Your task to perform on an android device: Clear all items from cart on newegg. Add "usb-c" to the cart on newegg Image 0: 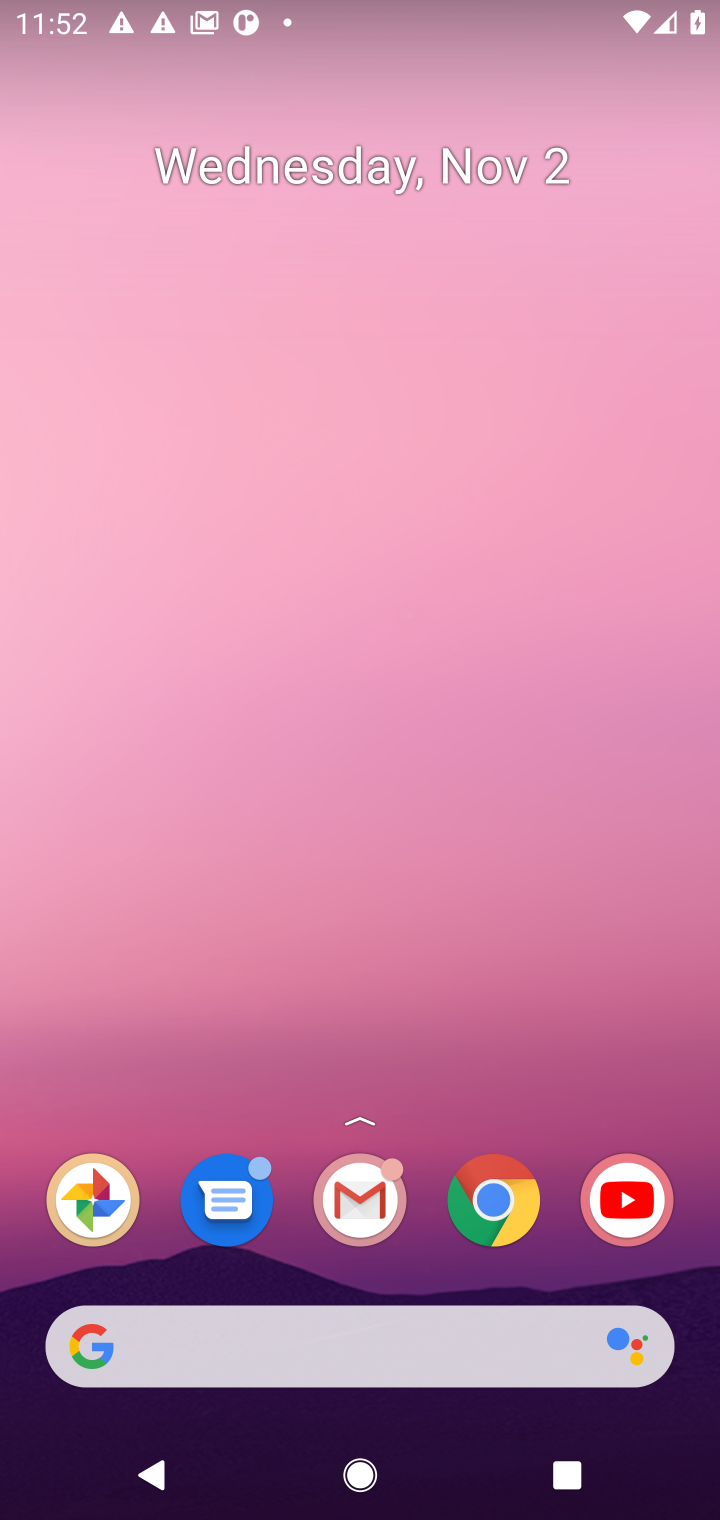
Step 0: click (490, 1186)
Your task to perform on an android device: Clear all items from cart on newegg. Add "usb-c" to the cart on newegg Image 1: 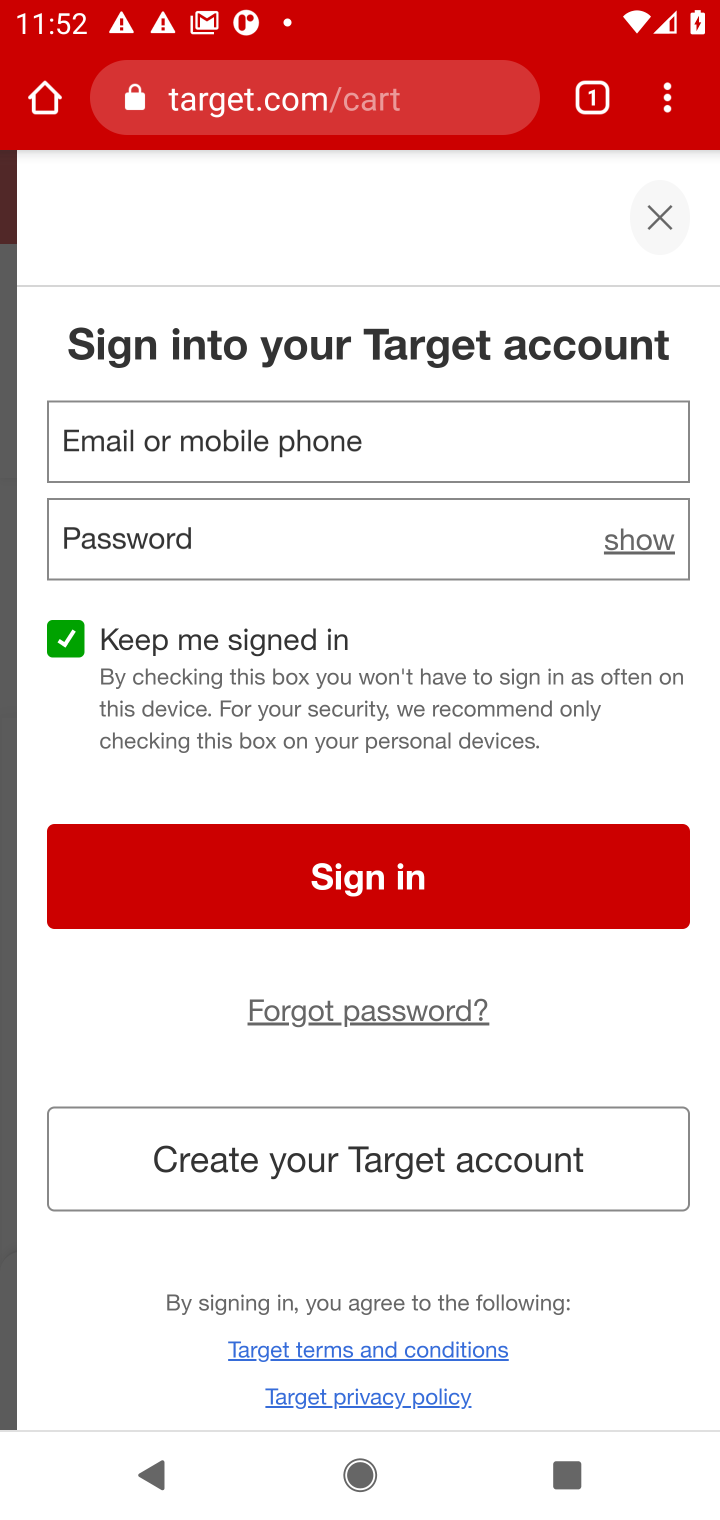
Step 1: click (49, 105)
Your task to perform on an android device: Clear all items from cart on newegg. Add "usb-c" to the cart on newegg Image 2: 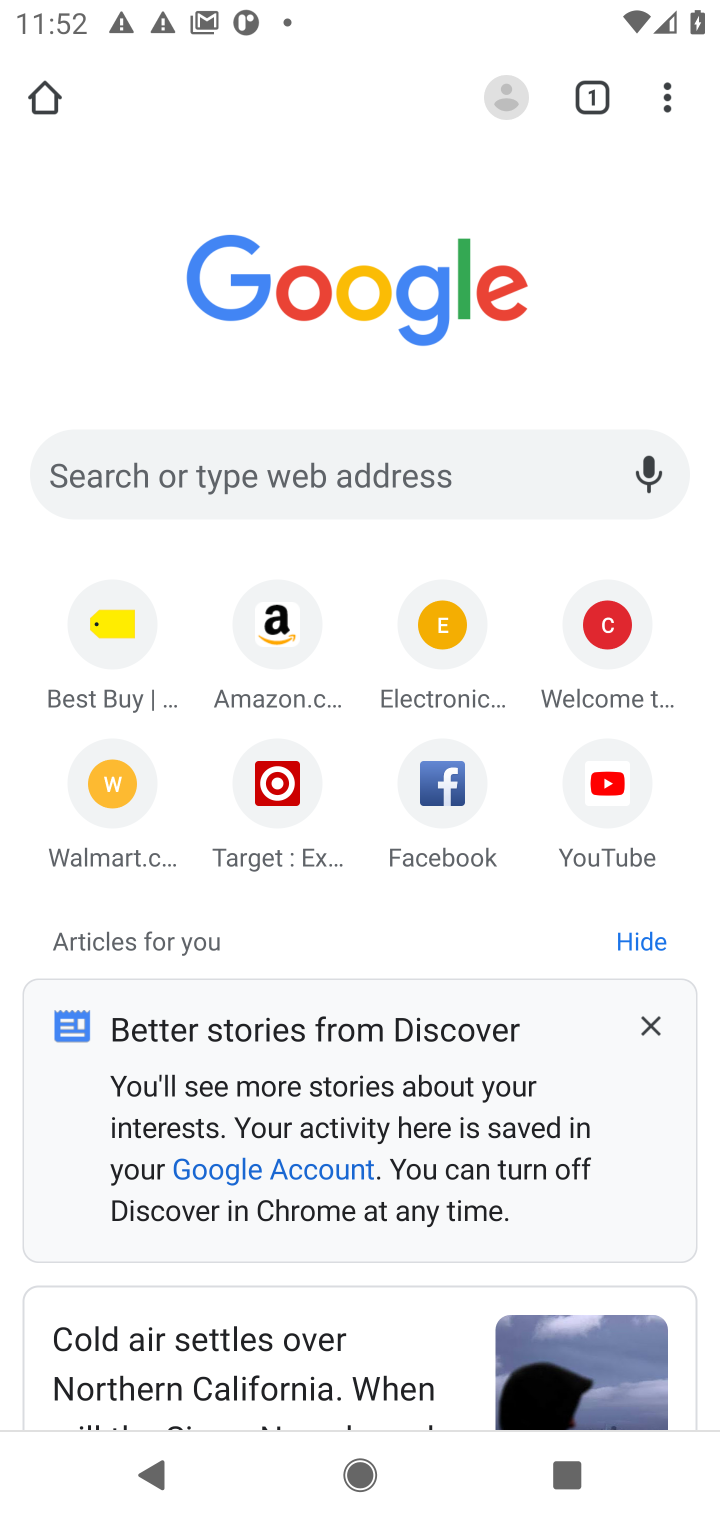
Step 2: click (435, 461)
Your task to perform on an android device: Clear all items from cart on newegg. Add "usb-c" to the cart on newegg Image 3: 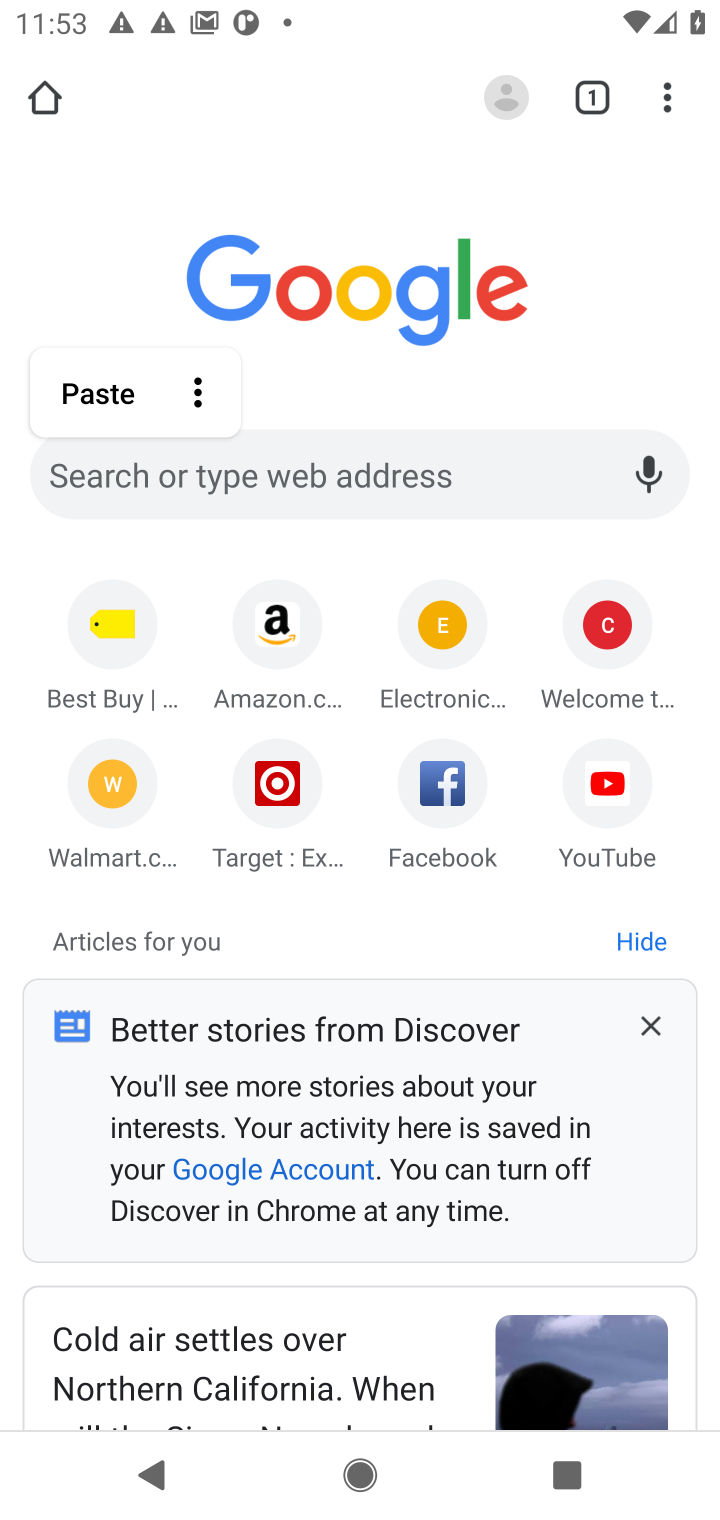
Step 3: click (284, 476)
Your task to perform on an android device: Clear all items from cart on newegg. Add "usb-c" to the cart on newegg Image 4: 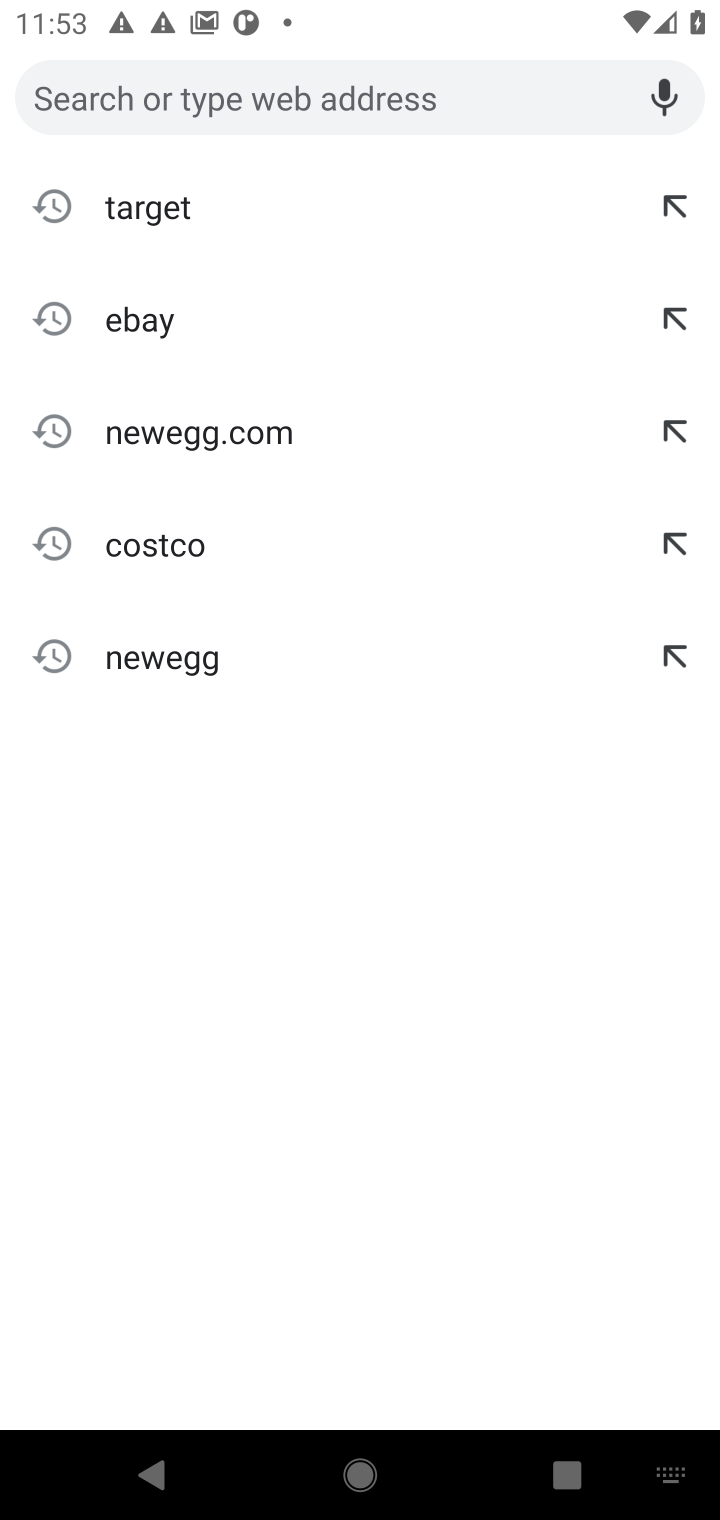
Step 4: click (284, 425)
Your task to perform on an android device: Clear all items from cart on newegg. Add "usb-c" to the cart on newegg Image 5: 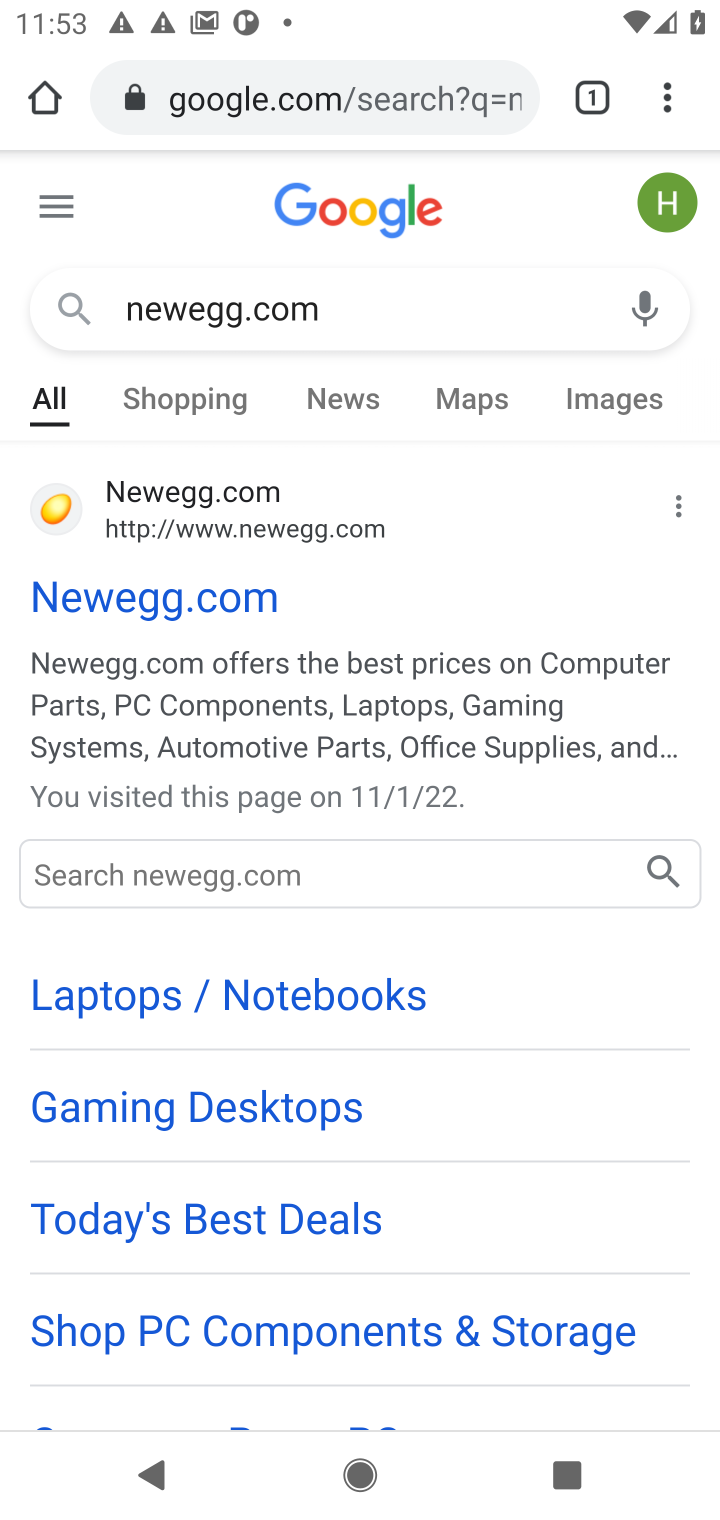
Step 5: click (207, 537)
Your task to perform on an android device: Clear all items from cart on newegg. Add "usb-c" to the cart on newegg Image 6: 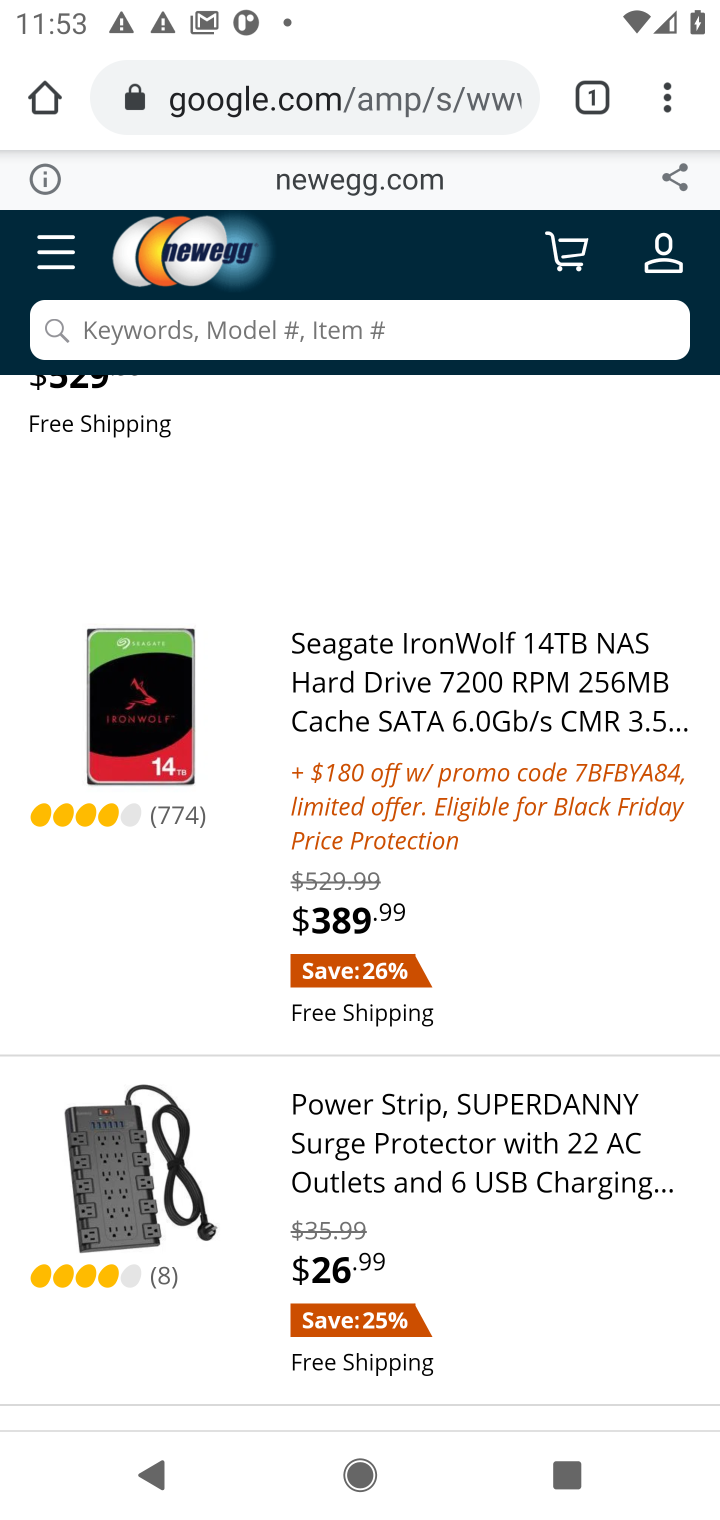
Step 6: click (577, 259)
Your task to perform on an android device: Clear all items from cart on newegg. Add "usb-c" to the cart on newegg Image 7: 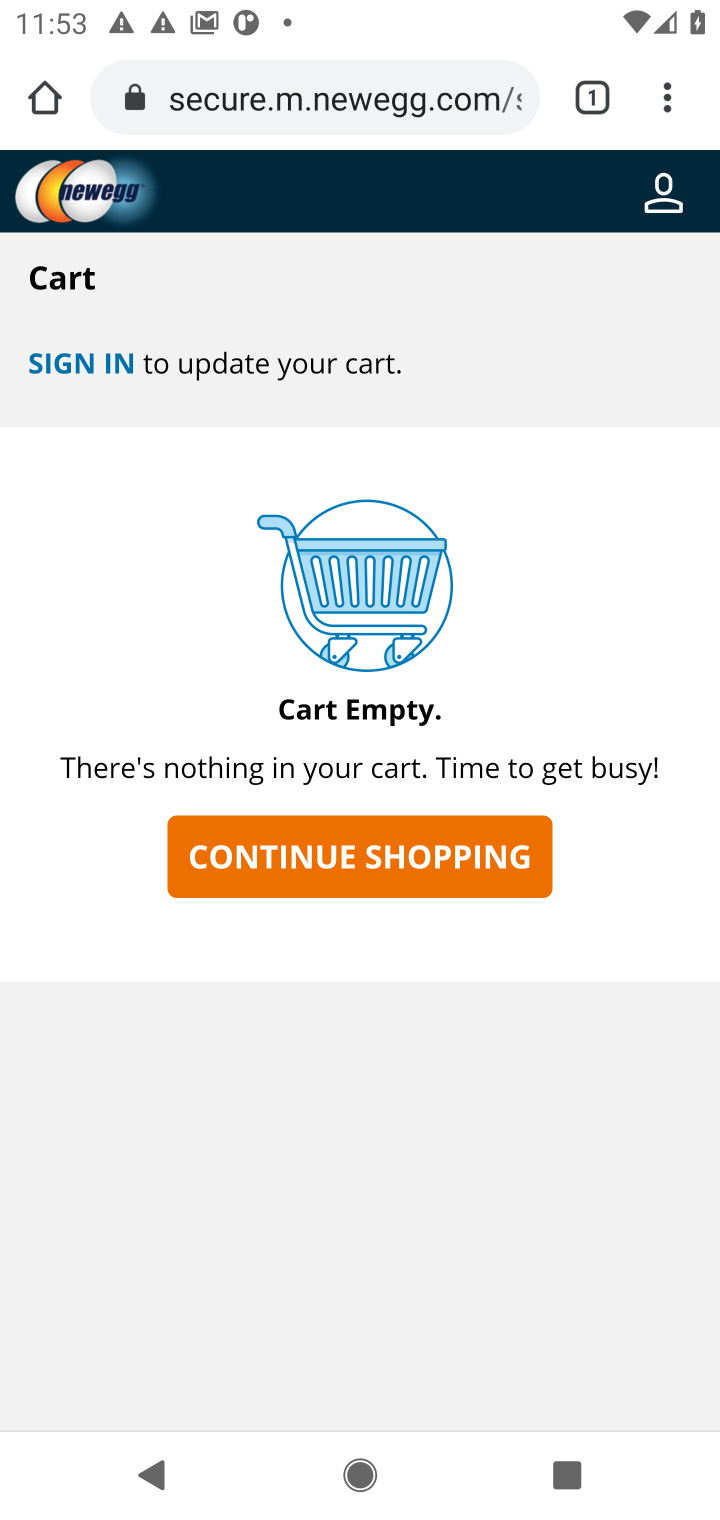
Step 7: press back button
Your task to perform on an android device: Clear all items from cart on newegg. Add "usb-c" to the cart on newegg Image 8: 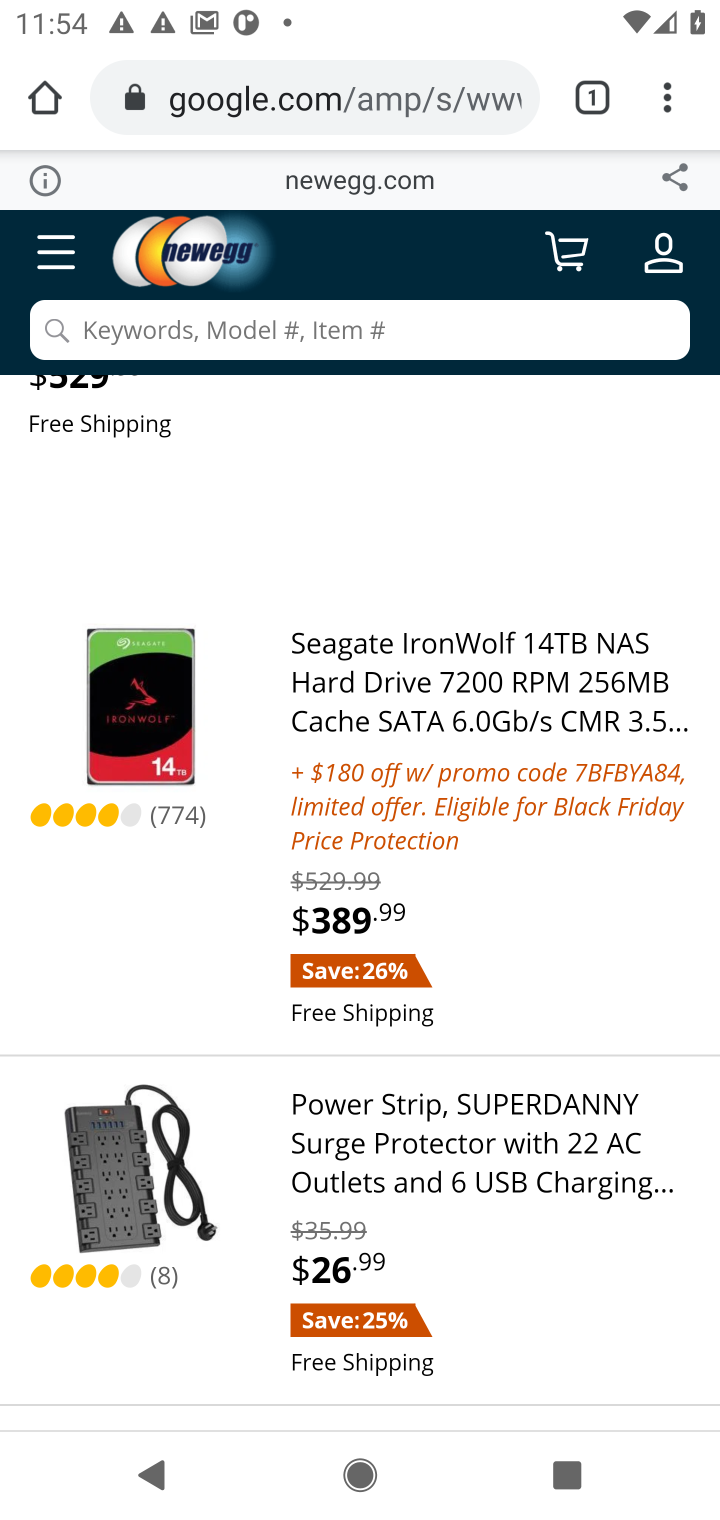
Step 8: drag from (493, 729) to (454, 1088)
Your task to perform on an android device: Clear all items from cart on newegg. Add "usb-c" to the cart on newegg Image 9: 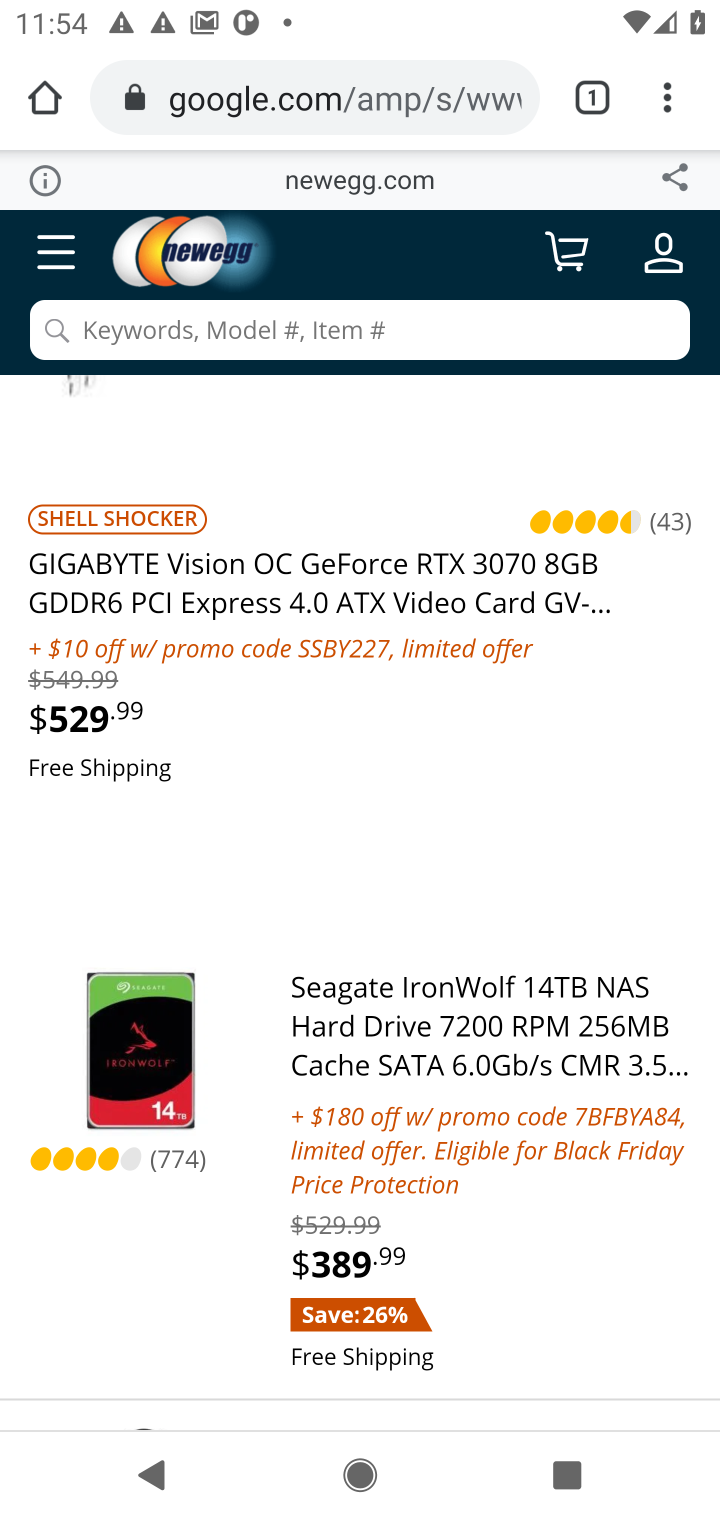
Step 9: click (303, 325)
Your task to perform on an android device: Clear all items from cart on newegg. Add "usb-c" to the cart on newegg Image 10: 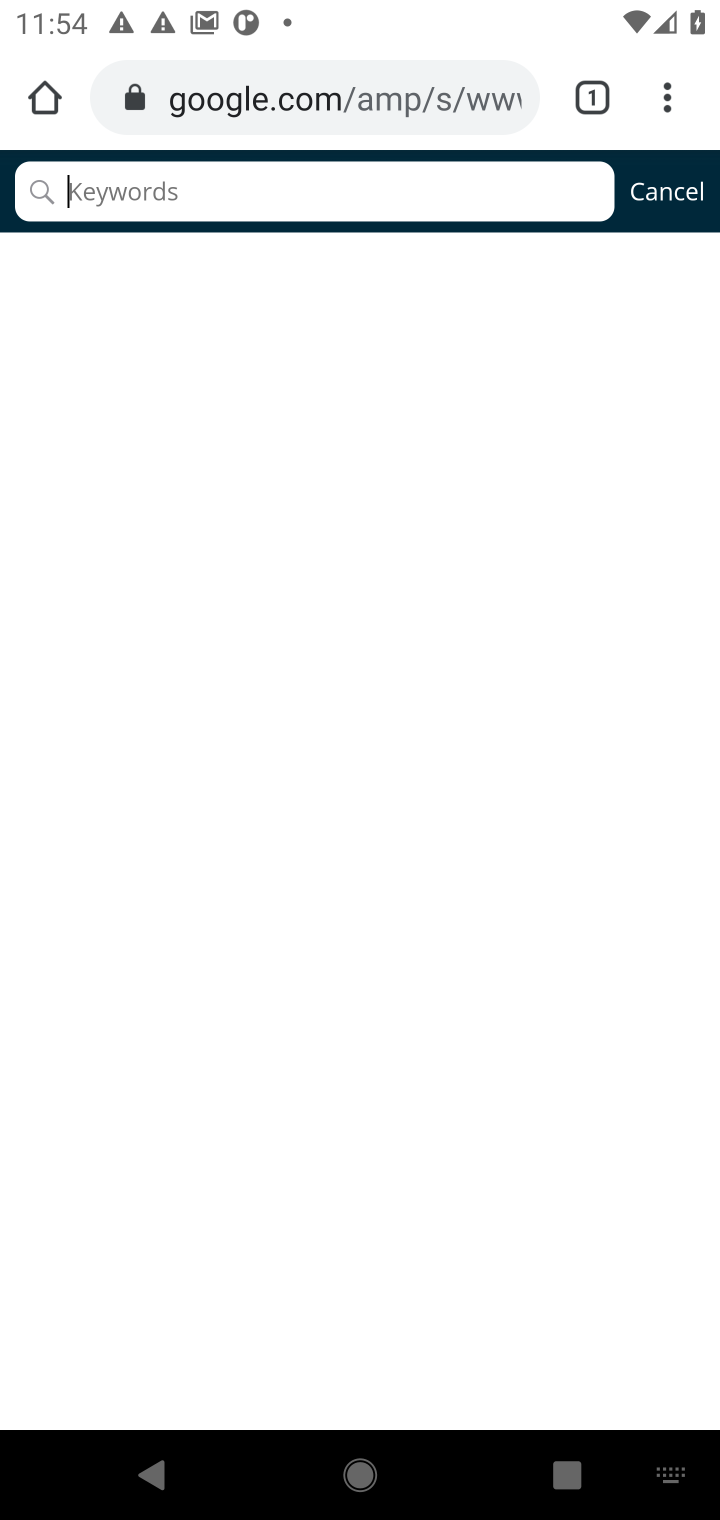
Step 10: type "usb-c"
Your task to perform on an android device: Clear all items from cart on newegg. Add "usb-c" to the cart on newegg Image 11: 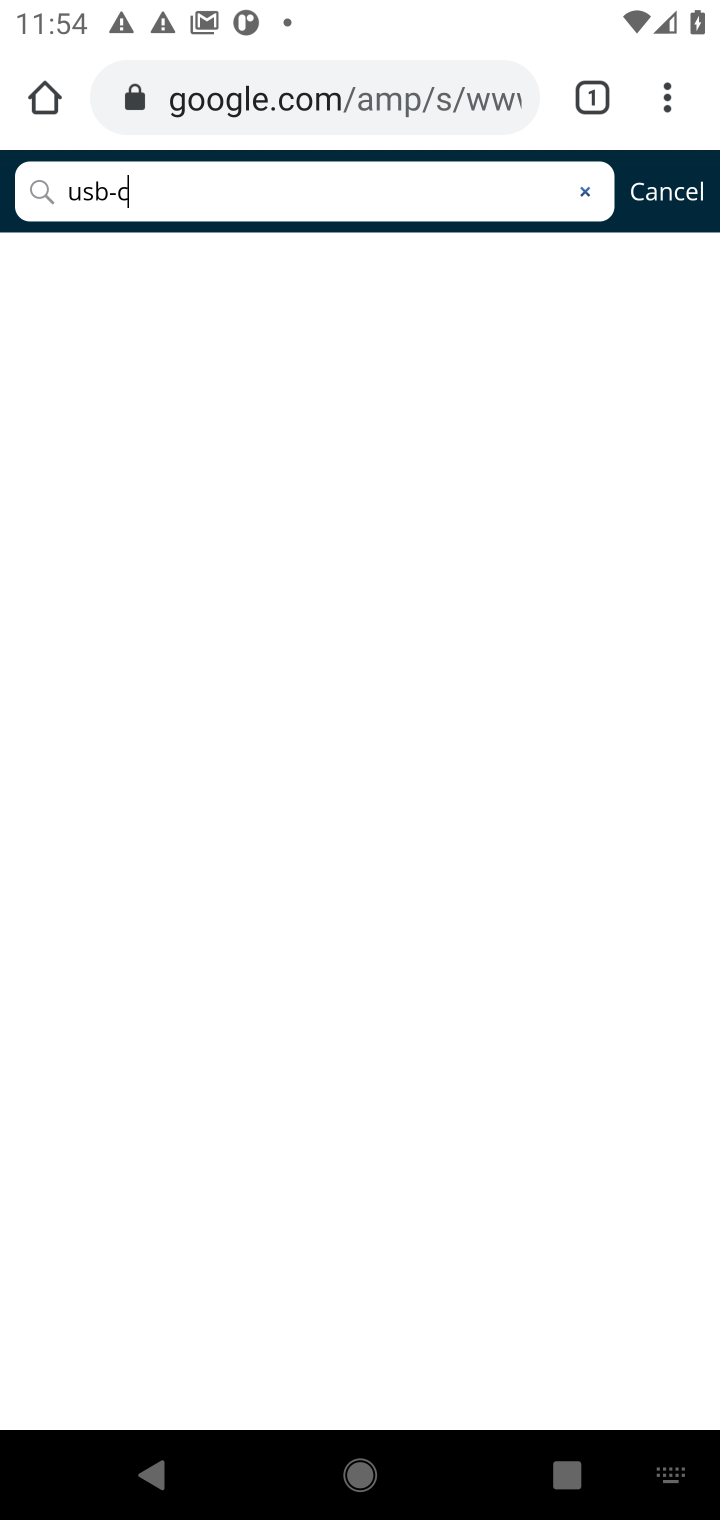
Step 11: click (668, 593)
Your task to perform on an android device: Clear all items from cart on newegg. Add "usb-c" to the cart on newegg Image 12: 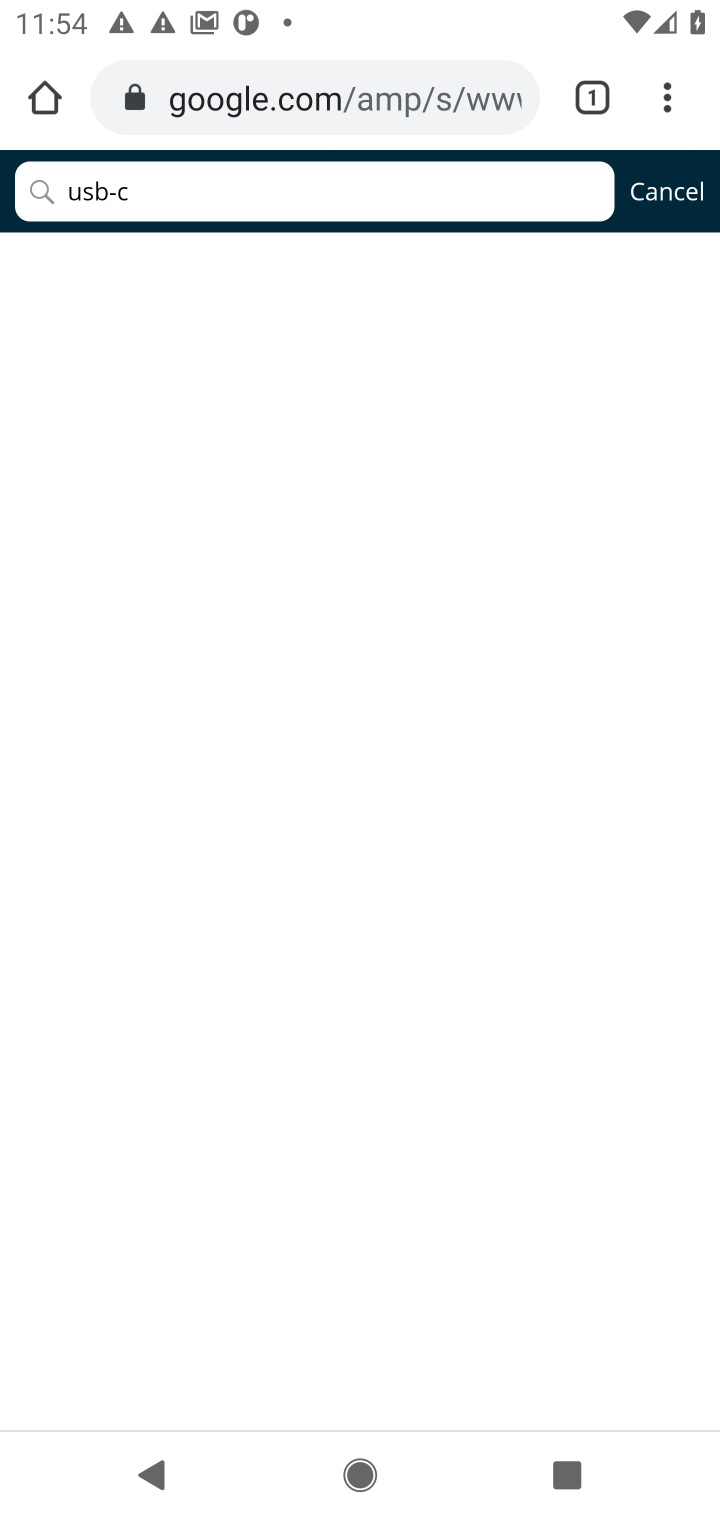
Step 12: click (666, 183)
Your task to perform on an android device: Clear all items from cart on newegg. Add "usb-c" to the cart on newegg Image 13: 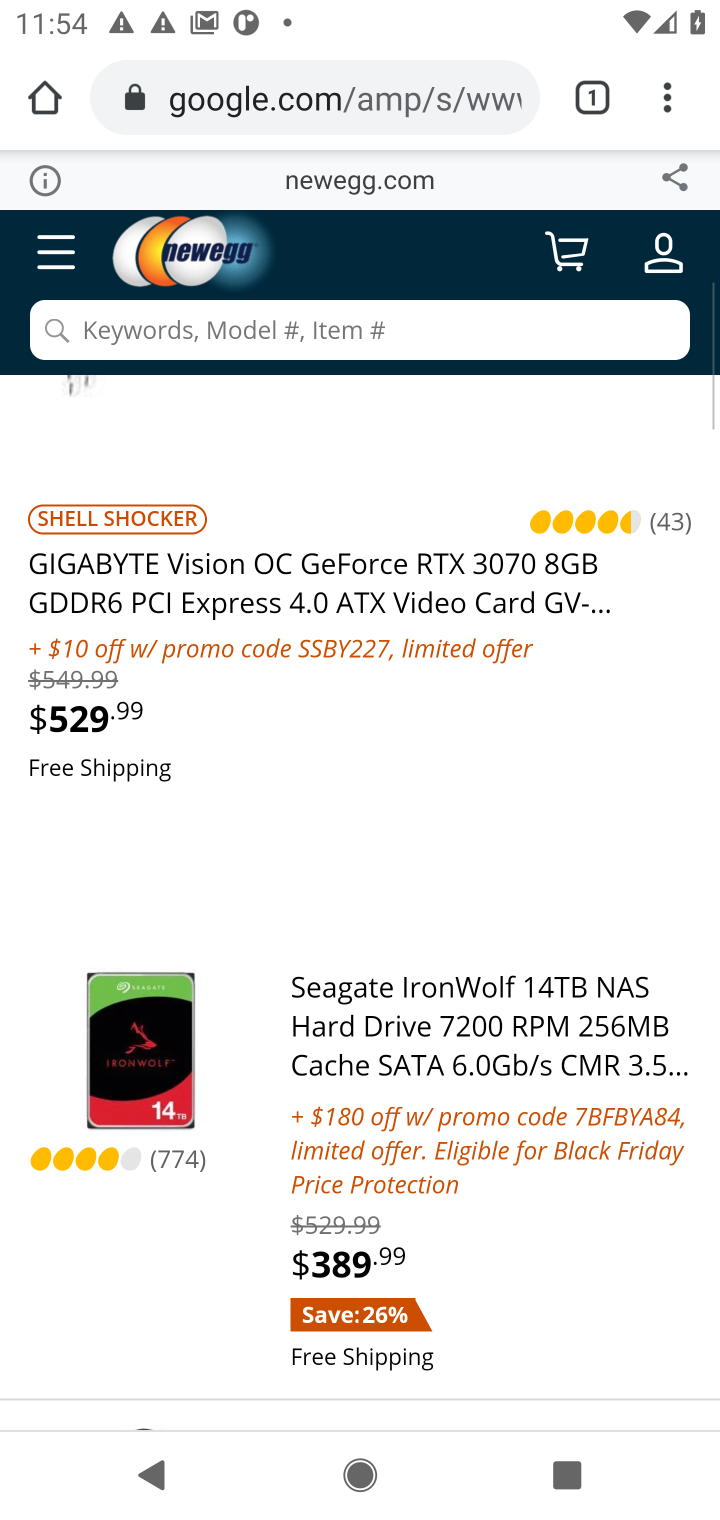
Step 13: task complete